Your task to perform on an android device: Play the last video I watched on Youtube Image 0: 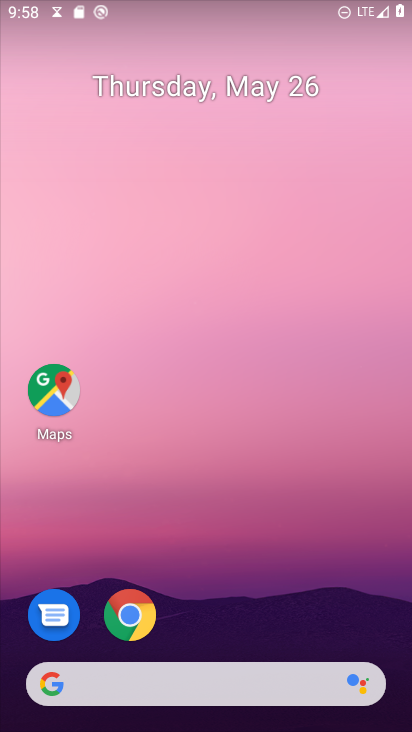
Step 0: drag from (291, 618) to (311, 250)
Your task to perform on an android device: Play the last video I watched on Youtube Image 1: 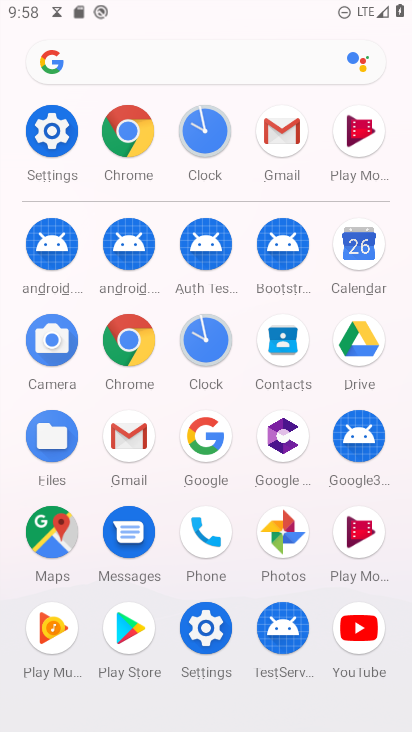
Step 1: click (361, 624)
Your task to perform on an android device: Play the last video I watched on Youtube Image 2: 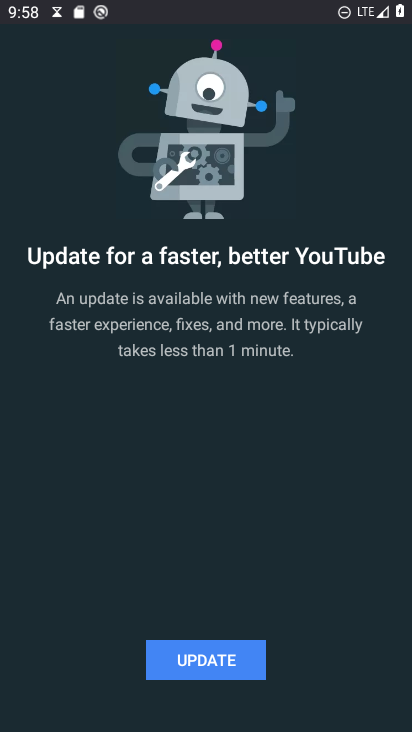
Step 2: task complete